Your task to perform on an android device: toggle improve location accuracy Image 0: 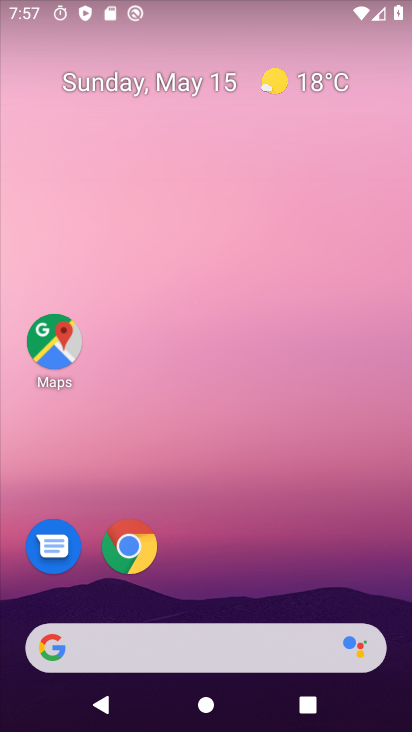
Step 0: drag from (252, 550) to (182, 61)
Your task to perform on an android device: toggle improve location accuracy Image 1: 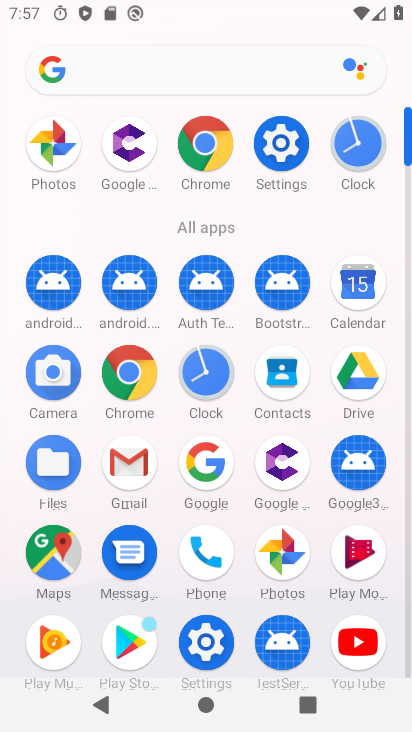
Step 1: click (282, 143)
Your task to perform on an android device: toggle improve location accuracy Image 2: 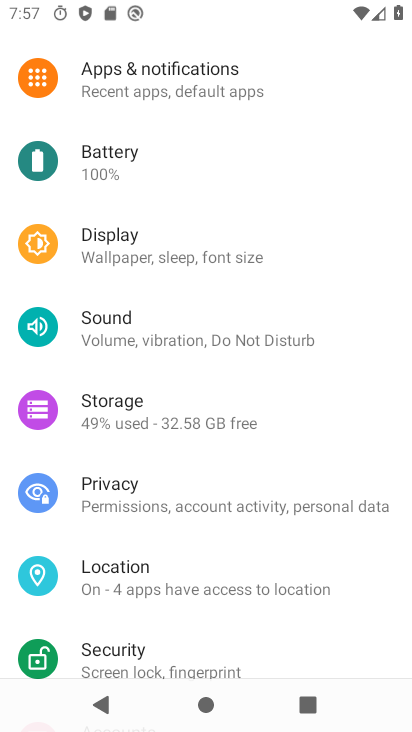
Step 2: click (150, 582)
Your task to perform on an android device: toggle improve location accuracy Image 3: 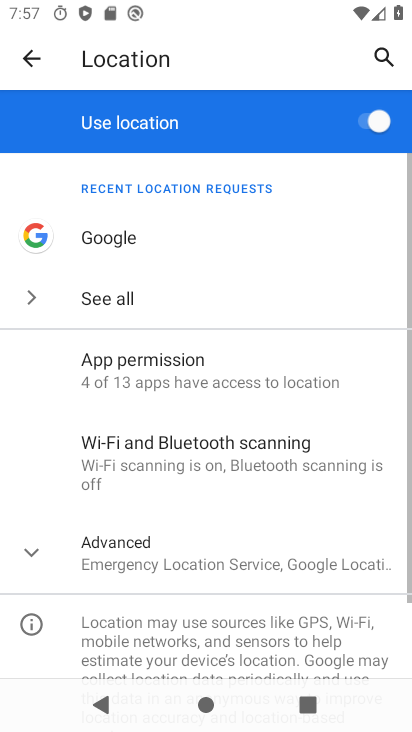
Step 3: click (165, 553)
Your task to perform on an android device: toggle improve location accuracy Image 4: 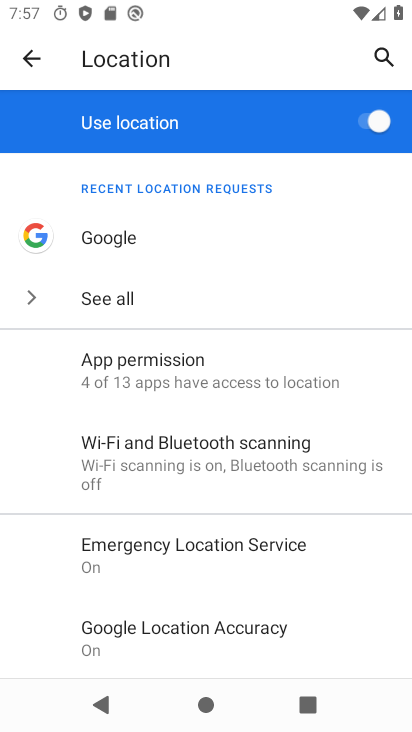
Step 4: drag from (158, 573) to (192, 433)
Your task to perform on an android device: toggle improve location accuracy Image 5: 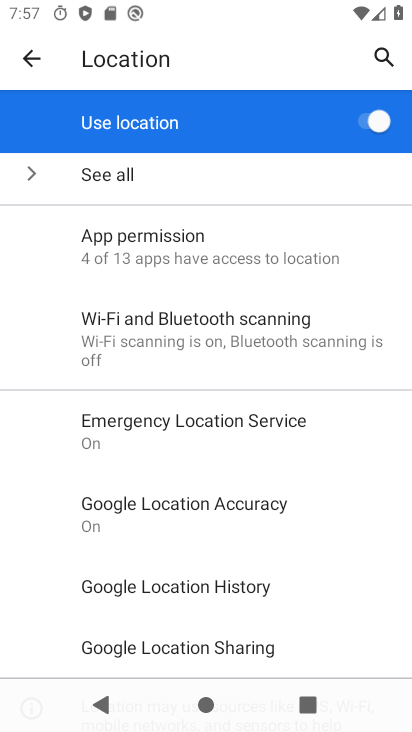
Step 5: click (184, 496)
Your task to perform on an android device: toggle improve location accuracy Image 6: 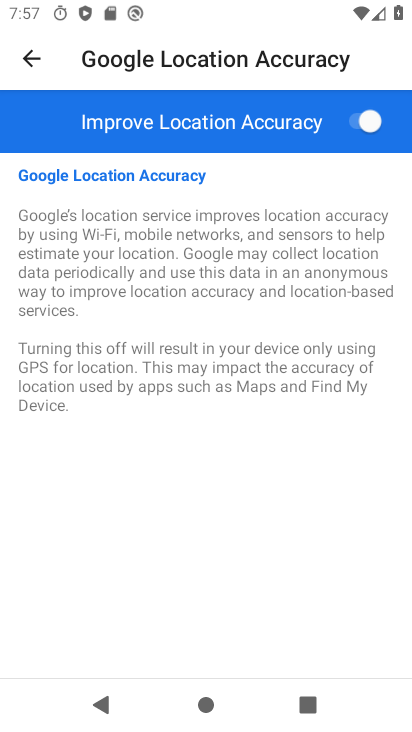
Step 6: click (374, 115)
Your task to perform on an android device: toggle improve location accuracy Image 7: 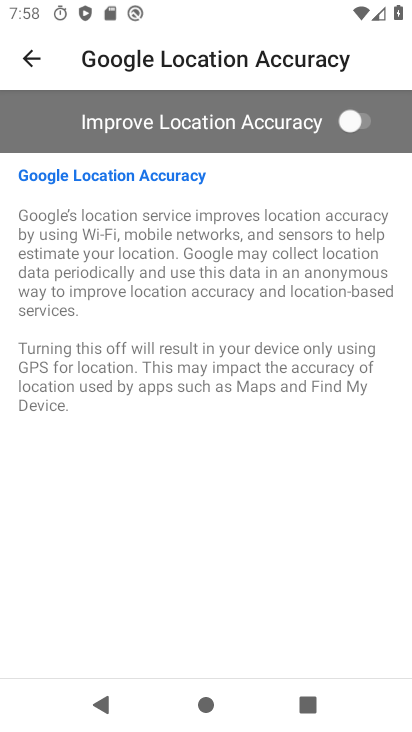
Step 7: task complete